Your task to perform on an android device: find snoozed emails in the gmail app Image 0: 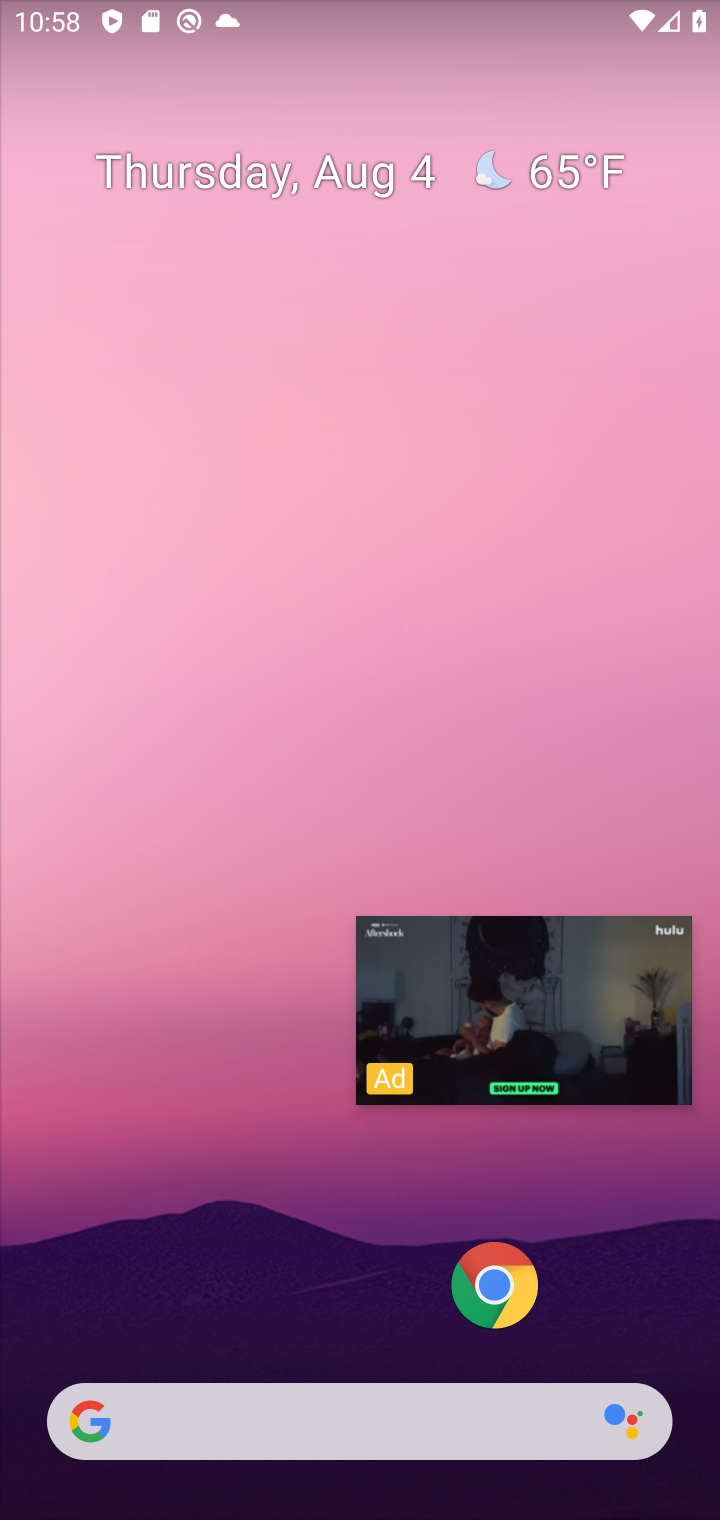
Step 0: click (452, 979)
Your task to perform on an android device: find snoozed emails in the gmail app Image 1: 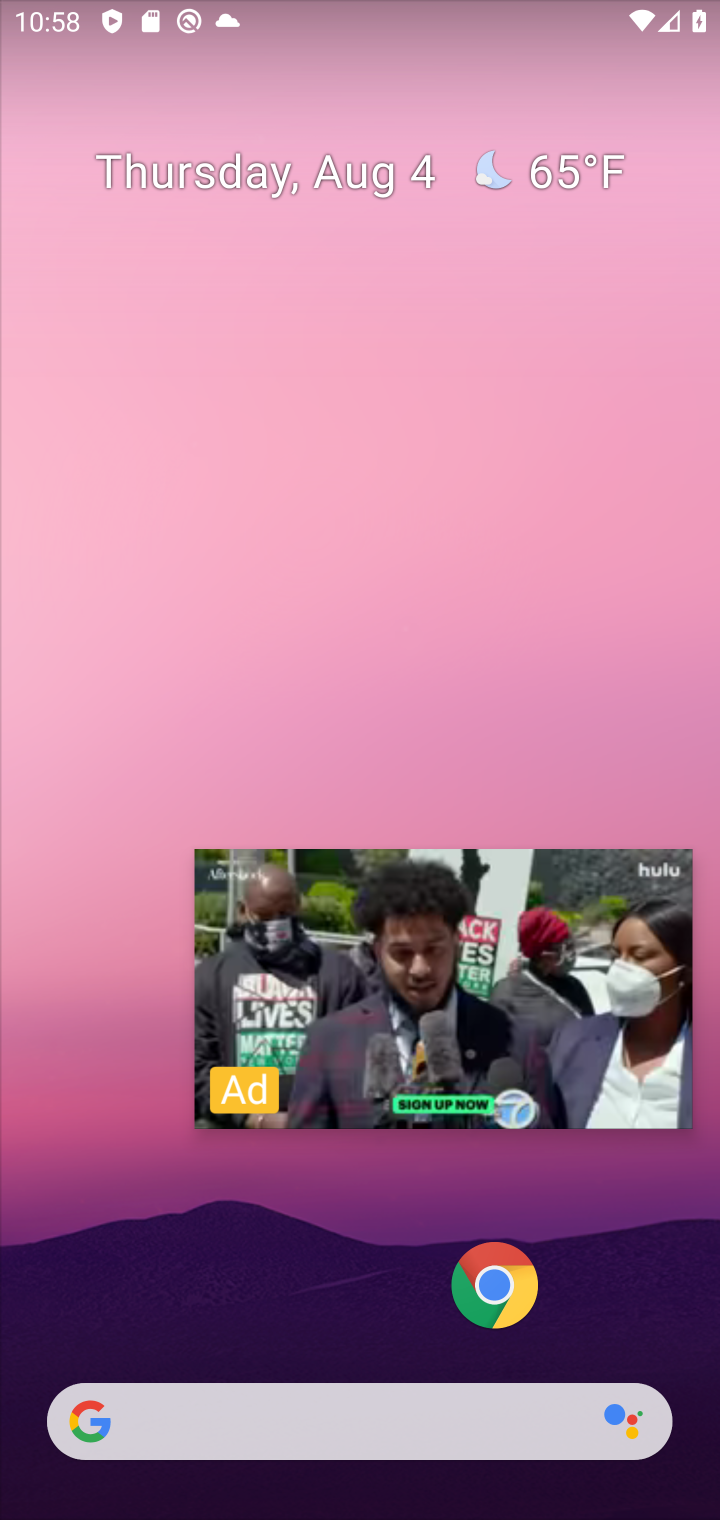
Step 1: click (463, 983)
Your task to perform on an android device: find snoozed emails in the gmail app Image 2: 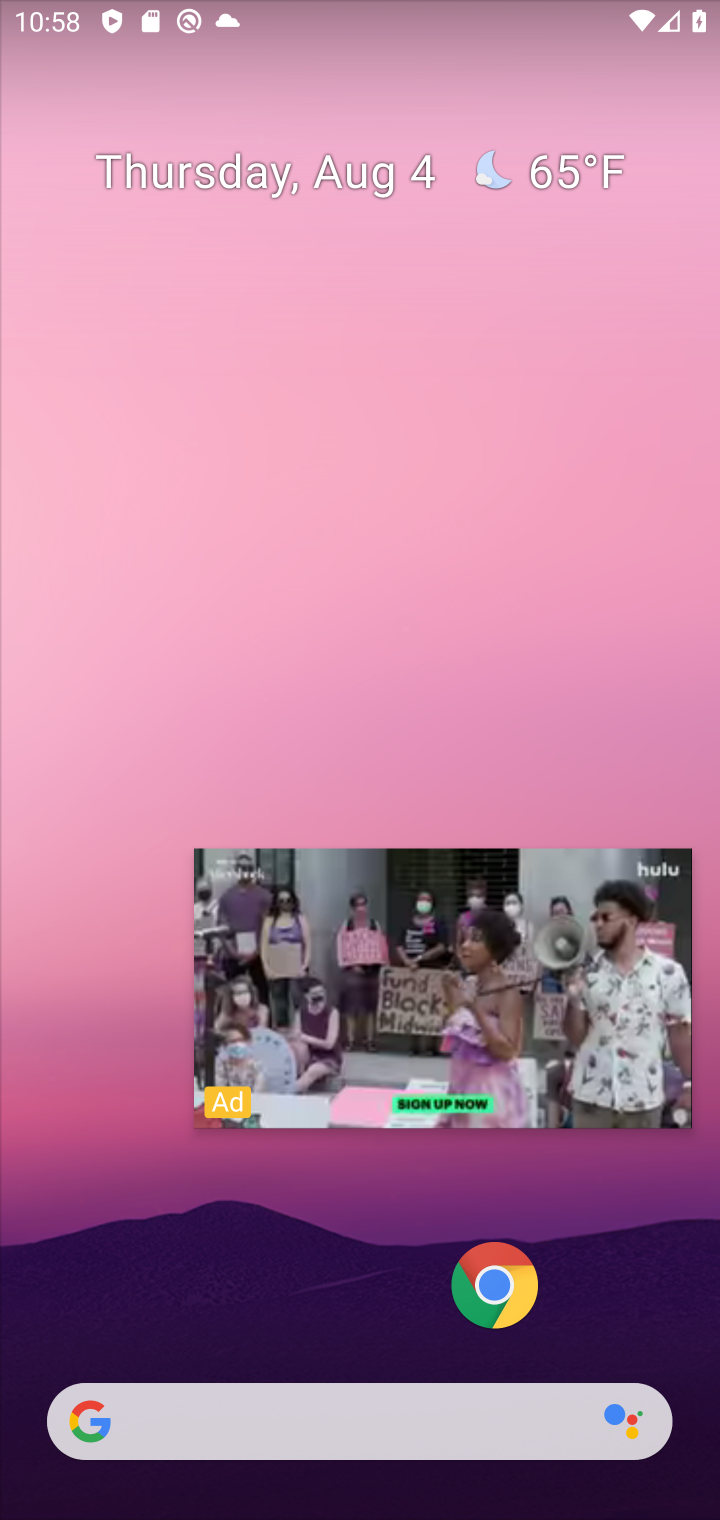
Step 2: click (656, 887)
Your task to perform on an android device: find snoozed emails in the gmail app Image 3: 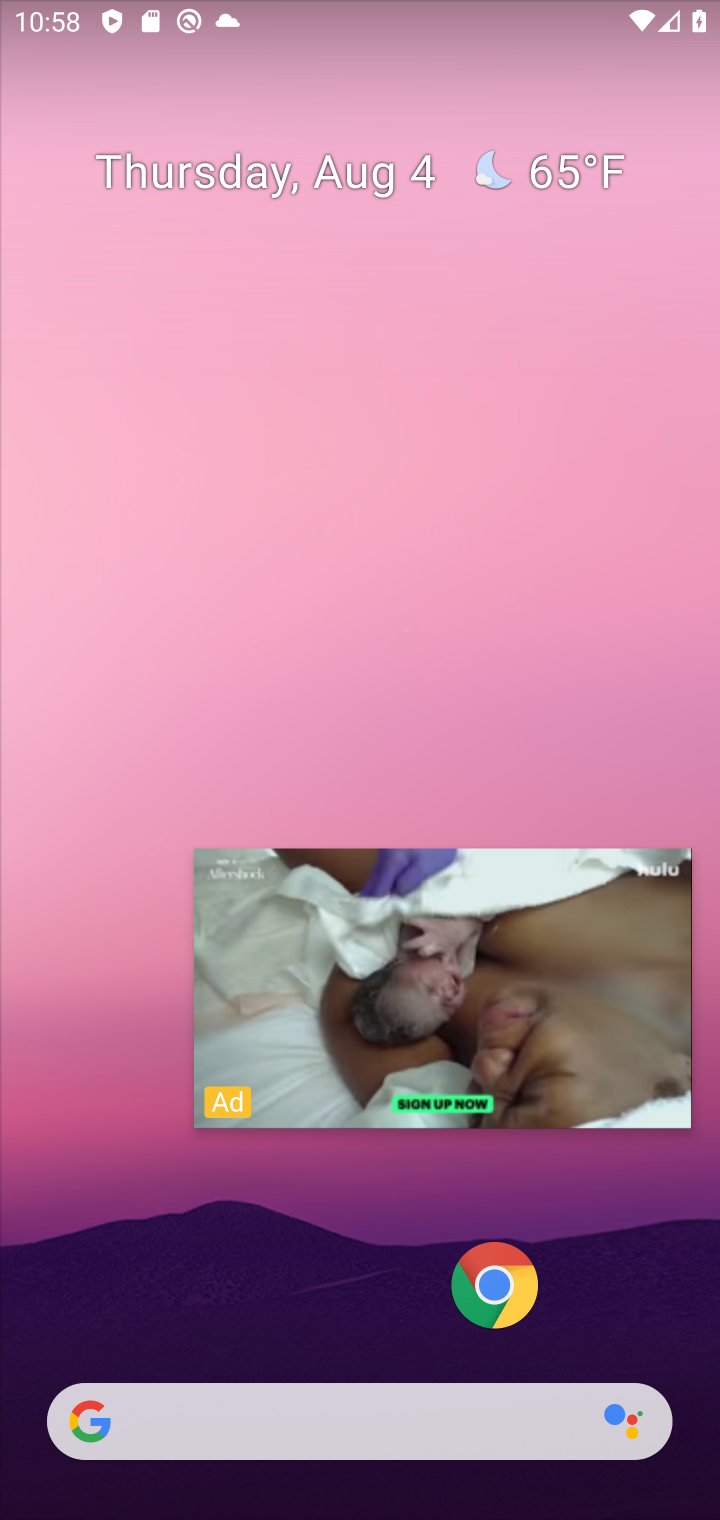
Step 3: press home button
Your task to perform on an android device: find snoozed emails in the gmail app Image 4: 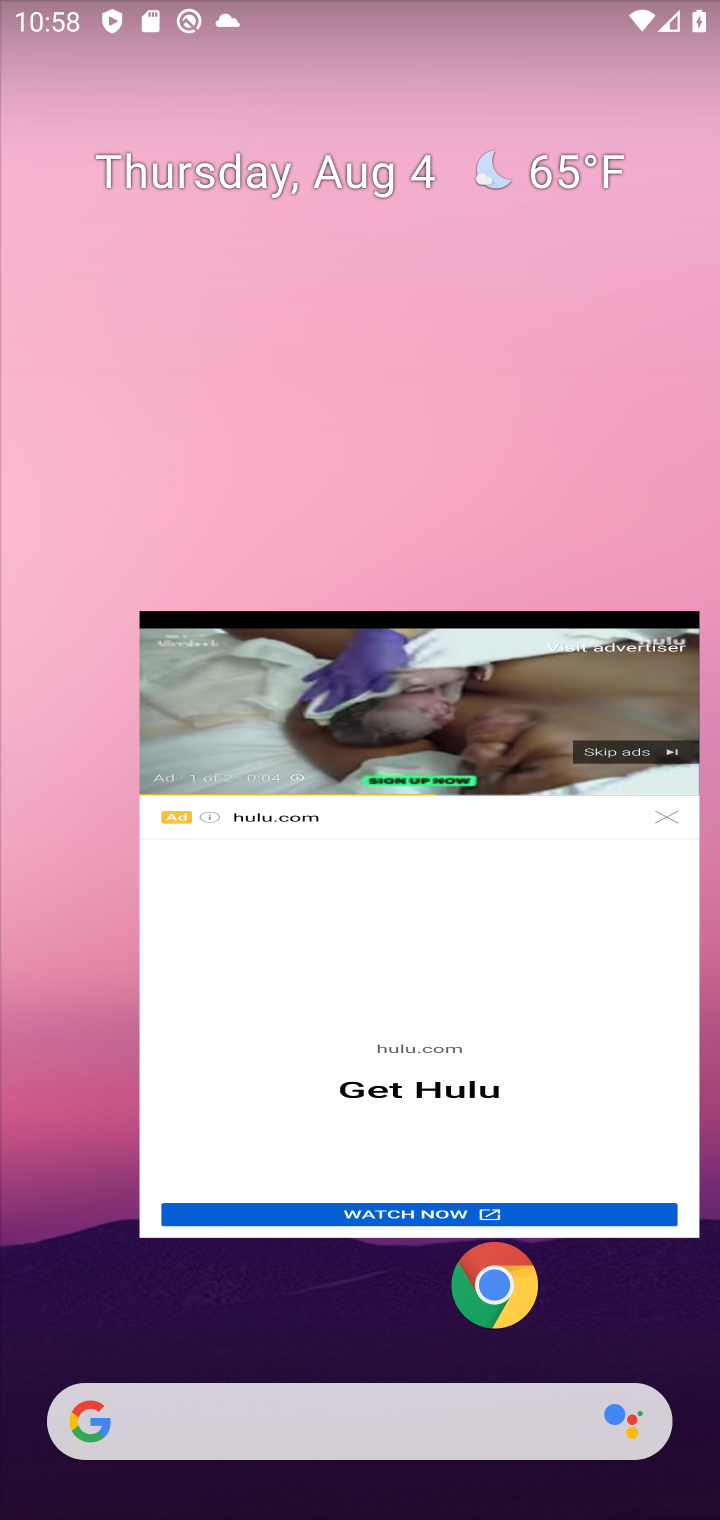
Step 4: drag from (662, 642) to (202, 664)
Your task to perform on an android device: find snoozed emails in the gmail app Image 5: 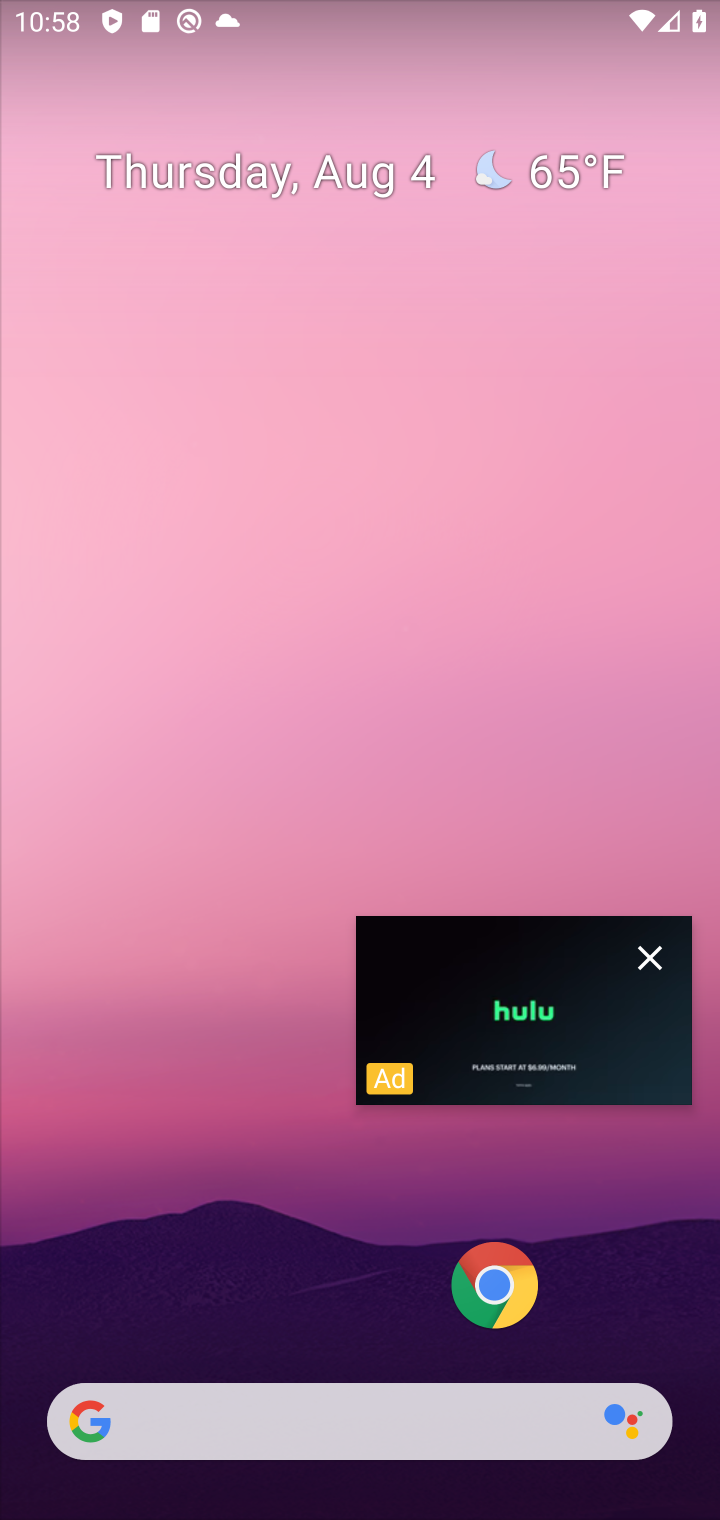
Step 5: click (689, 931)
Your task to perform on an android device: find snoozed emails in the gmail app Image 6: 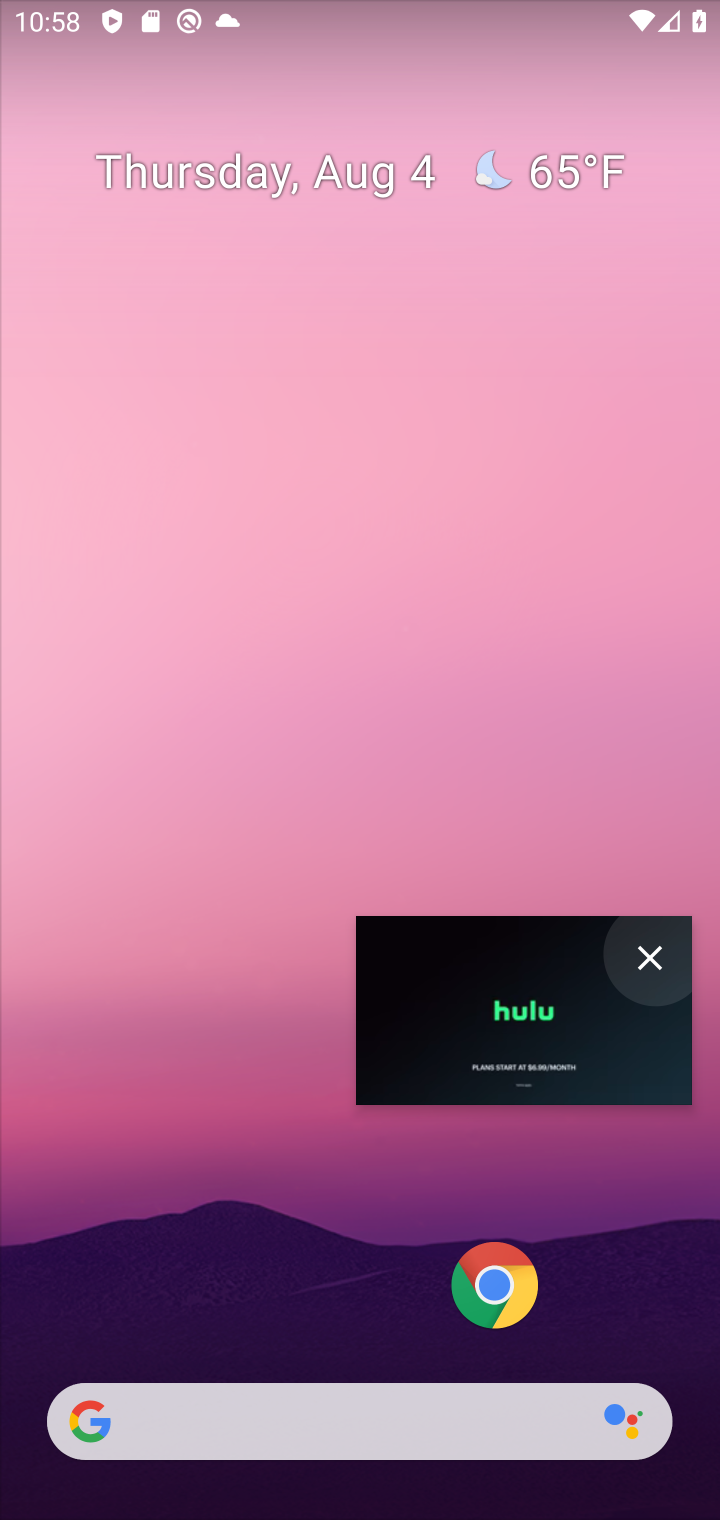
Step 6: click (641, 949)
Your task to perform on an android device: find snoozed emails in the gmail app Image 7: 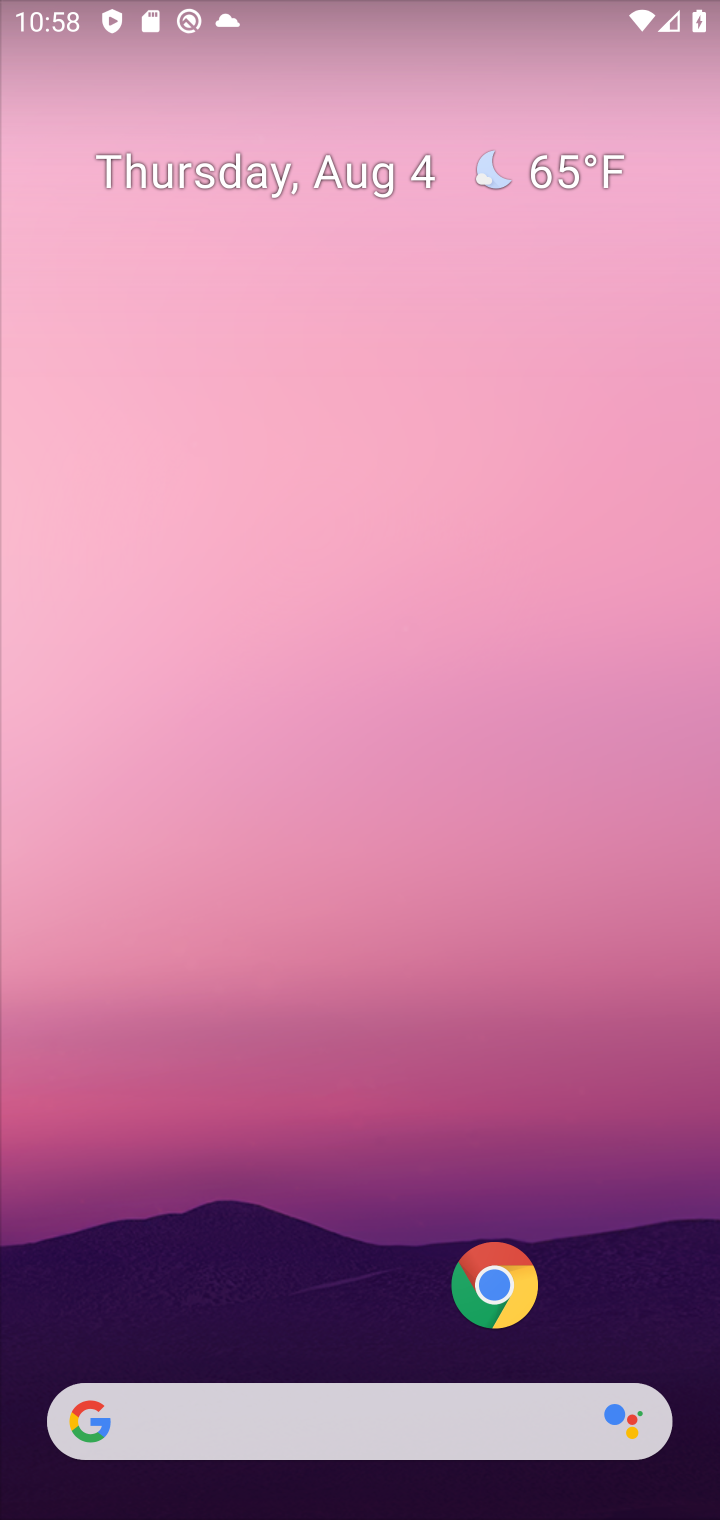
Step 7: drag from (403, 1226) to (426, 116)
Your task to perform on an android device: find snoozed emails in the gmail app Image 8: 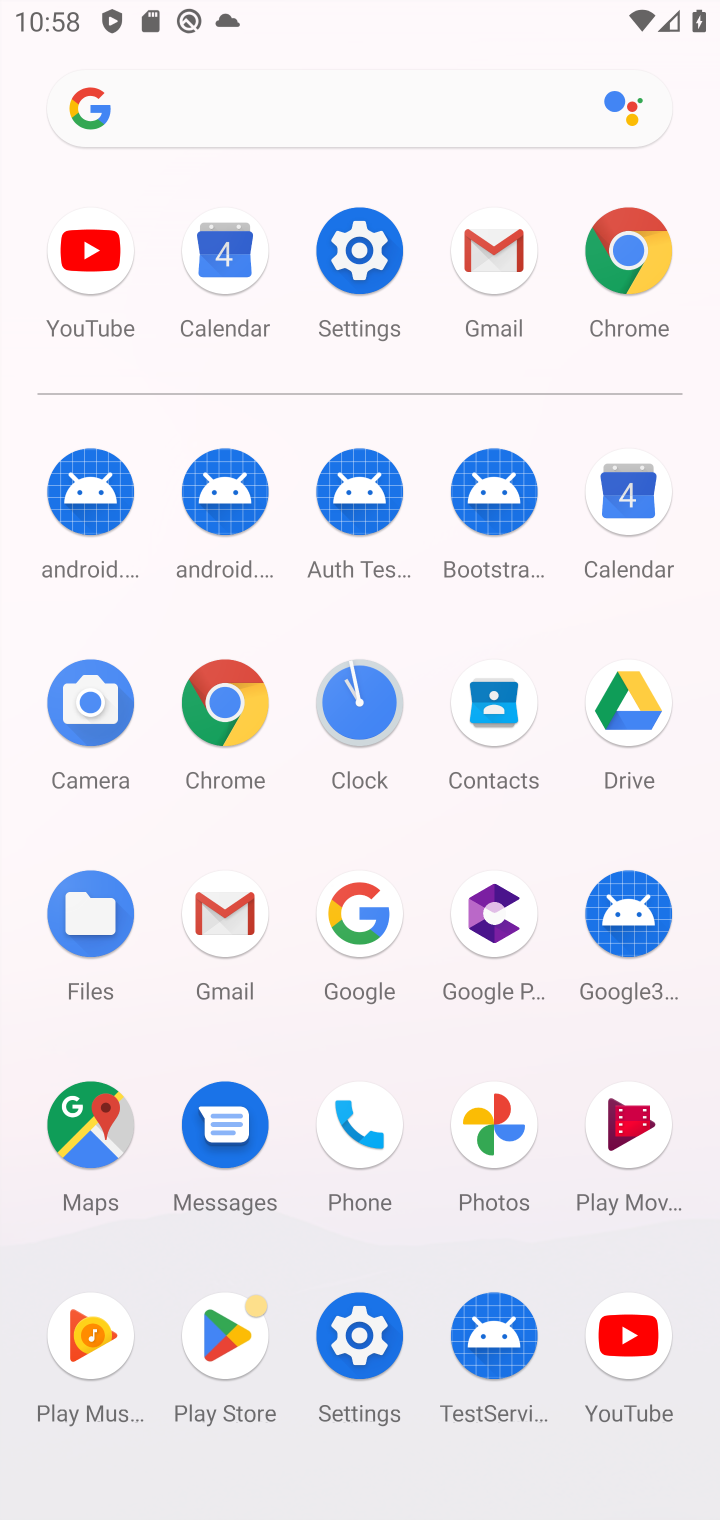
Step 8: click (218, 923)
Your task to perform on an android device: find snoozed emails in the gmail app Image 9: 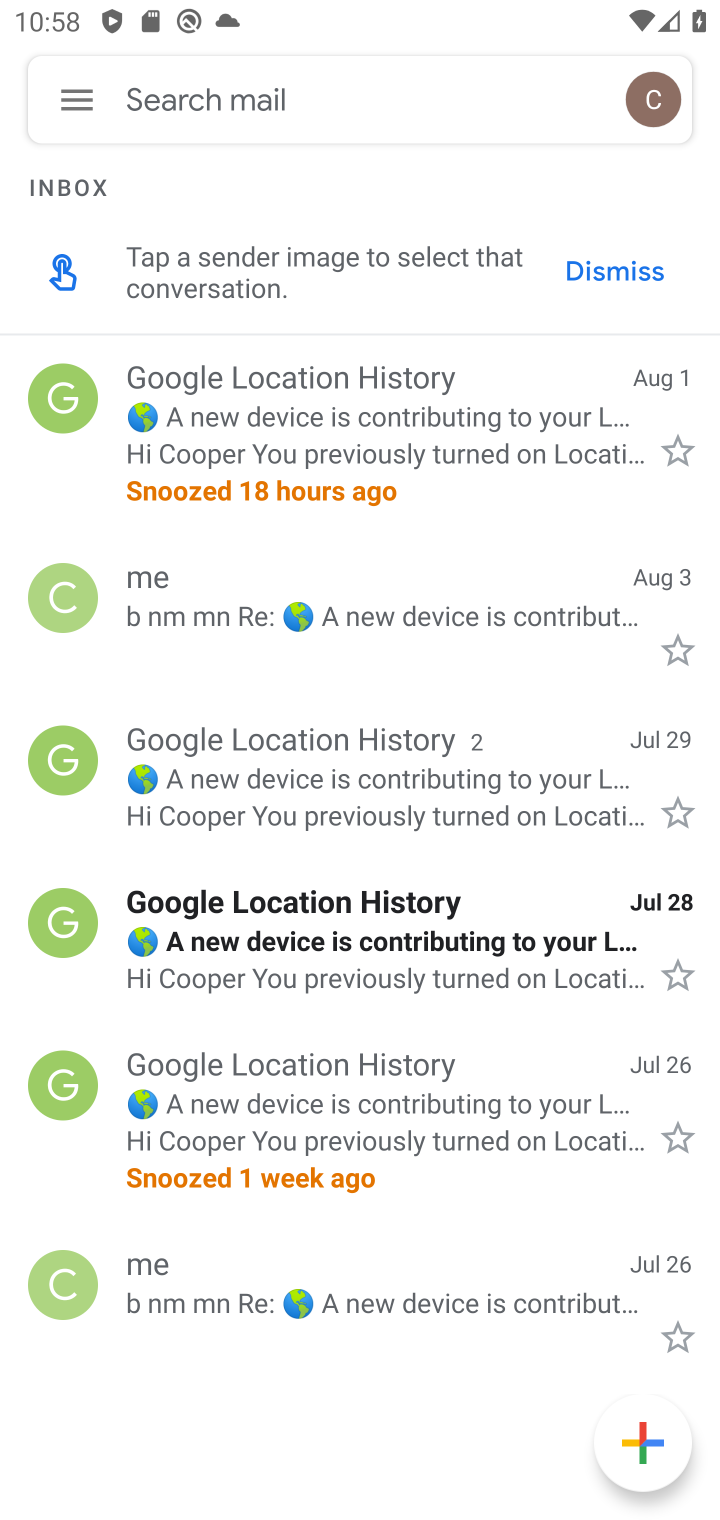
Step 9: click (67, 103)
Your task to perform on an android device: find snoozed emails in the gmail app Image 10: 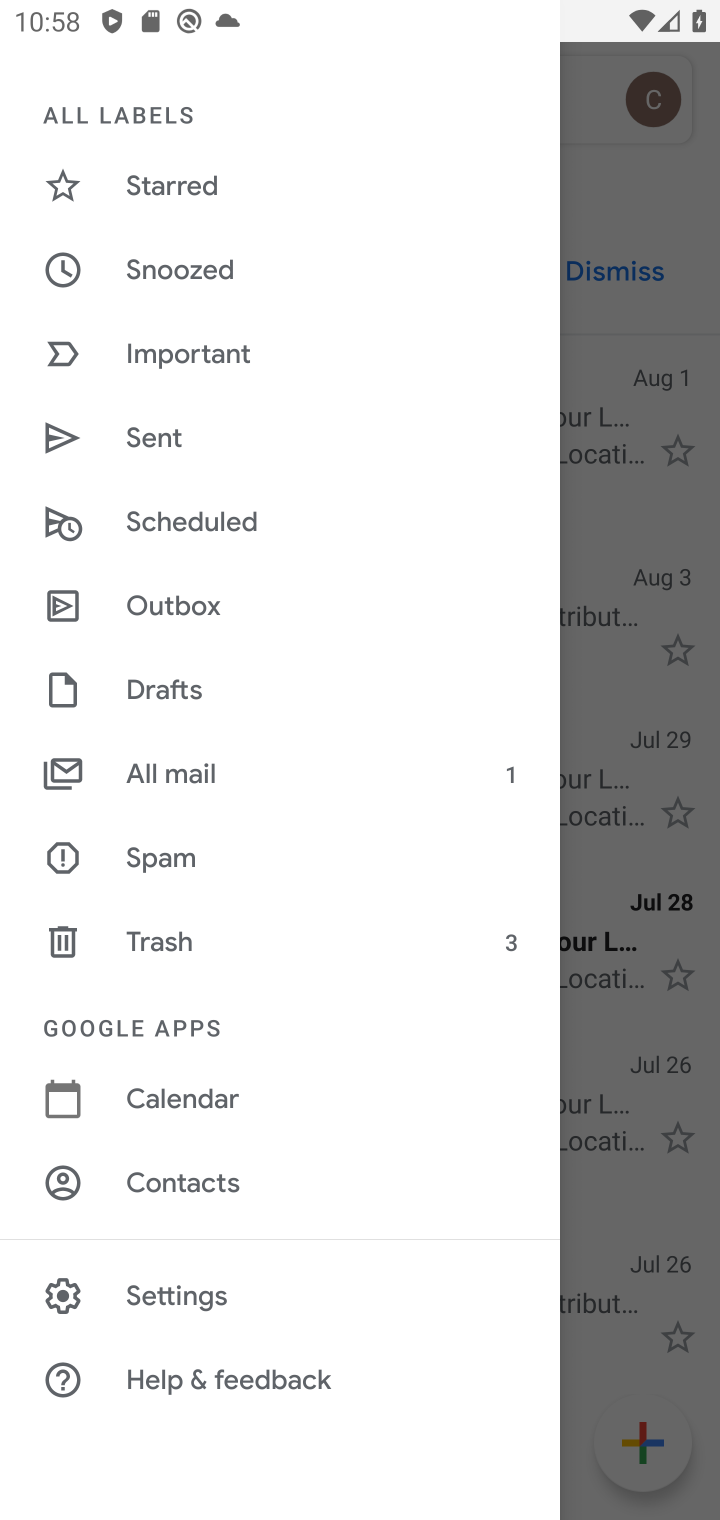
Step 10: click (178, 266)
Your task to perform on an android device: find snoozed emails in the gmail app Image 11: 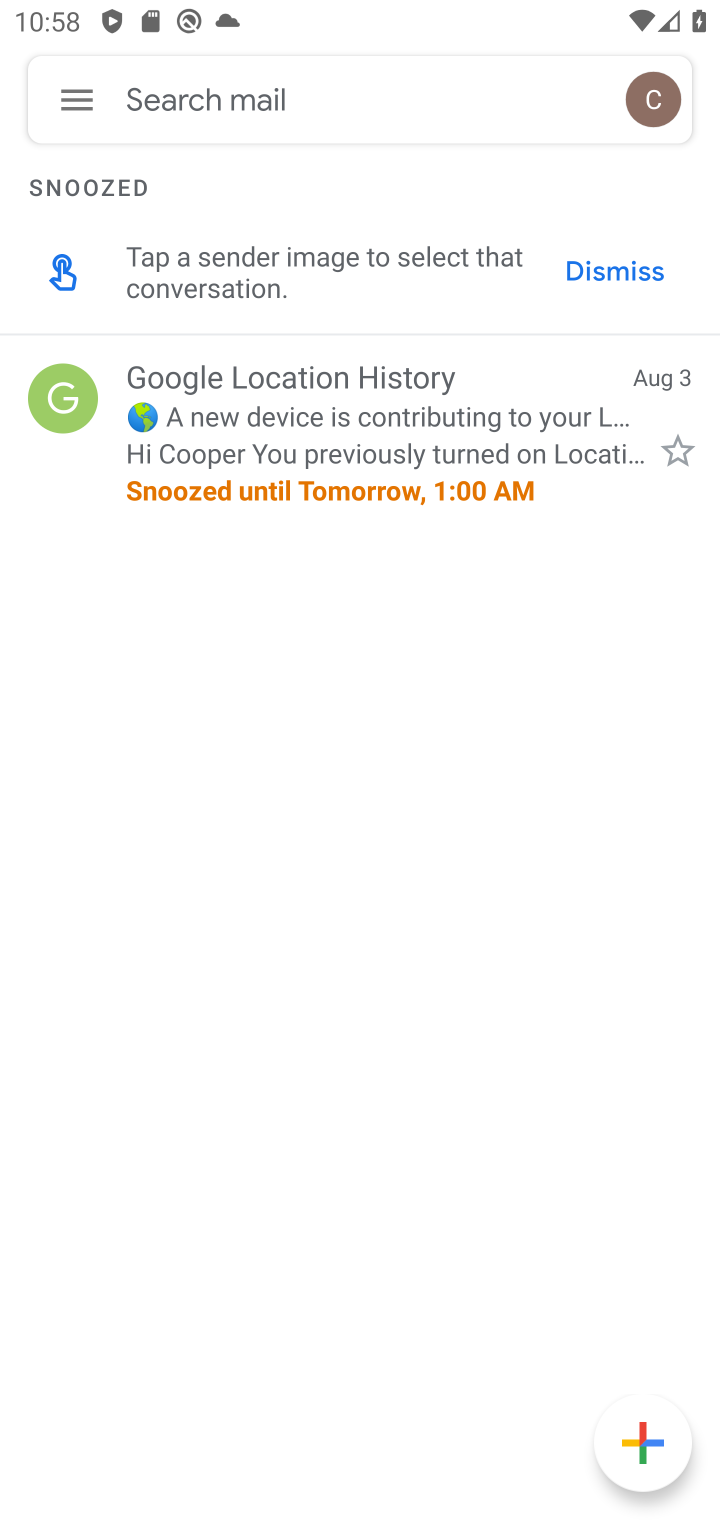
Step 11: task complete